Your task to perform on an android device: move an email to a new category in the gmail app Image 0: 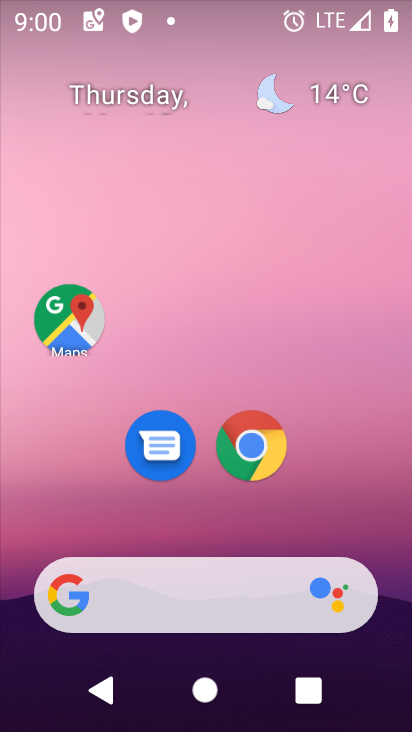
Step 0: drag from (204, 728) to (211, 66)
Your task to perform on an android device: move an email to a new category in the gmail app Image 1: 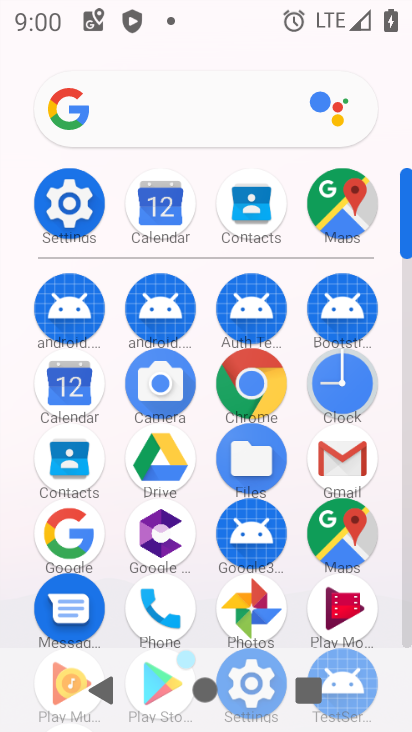
Step 1: click (351, 461)
Your task to perform on an android device: move an email to a new category in the gmail app Image 2: 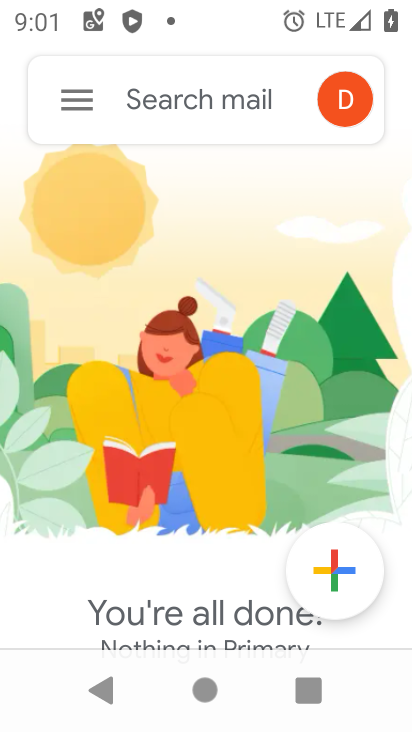
Step 2: task complete